Your task to perform on an android device: change the clock display to digital Image 0: 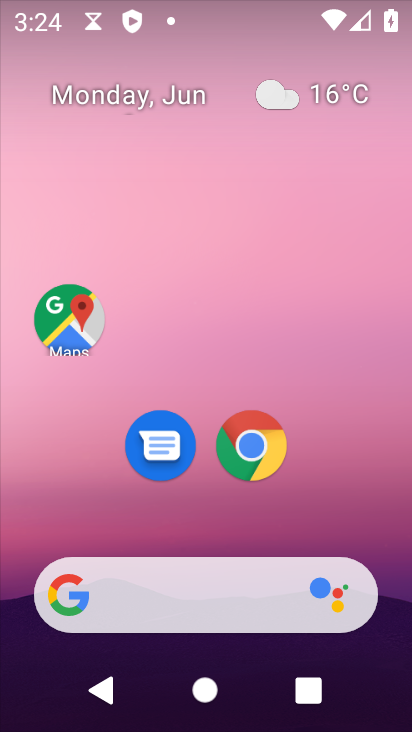
Step 0: drag from (90, 561) to (270, 64)
Your task to perform on an android device: change the clock display to digital Image 1: 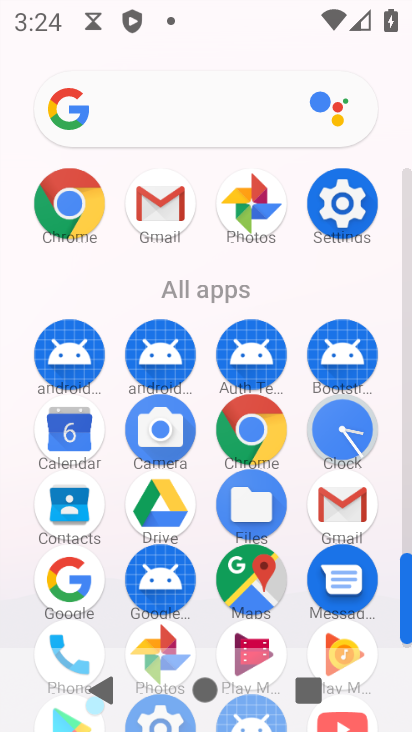
Step 1: click (346, 417)
Your task to perform on an android device: change the clock display to digital Image 2: 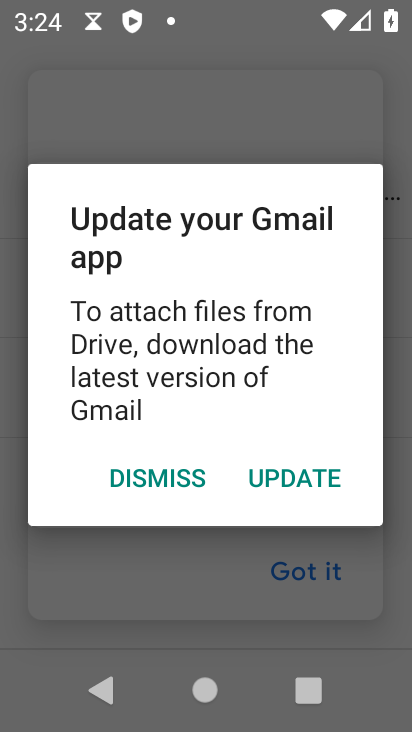
Step 2: press back button
Your task to perform on an android device: change the clock display to digital Image 3: 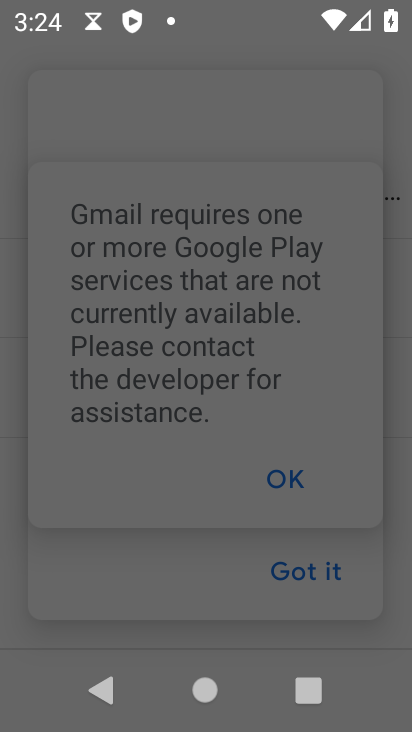
Step 3: click (304, 489)
Your task to perform on an android device: change the clock display to digital Image 4: 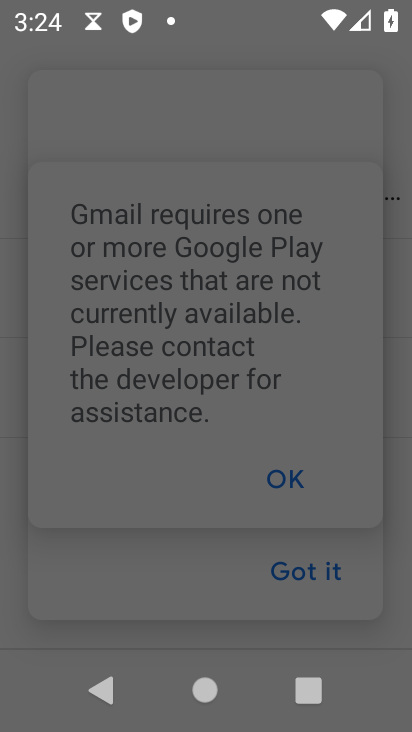
Step 4: click (277, 472)
Your task to perform on an android device: change the clock display to digital Image 5: 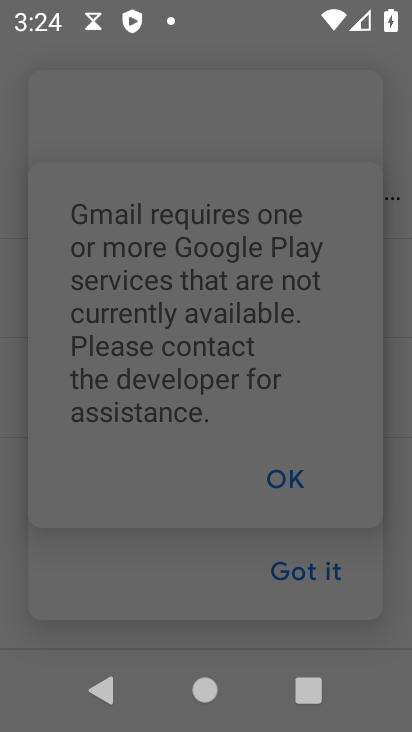
Step 5: click (344, 619)
Your task to perform on an android device: change the clock display to digital Image 6: 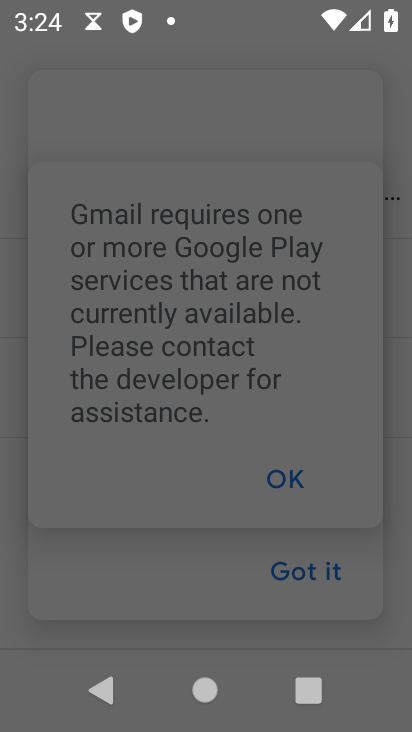
Step 6: press home button
Your task to perform on an android device: change the clock display to digital Image 7: 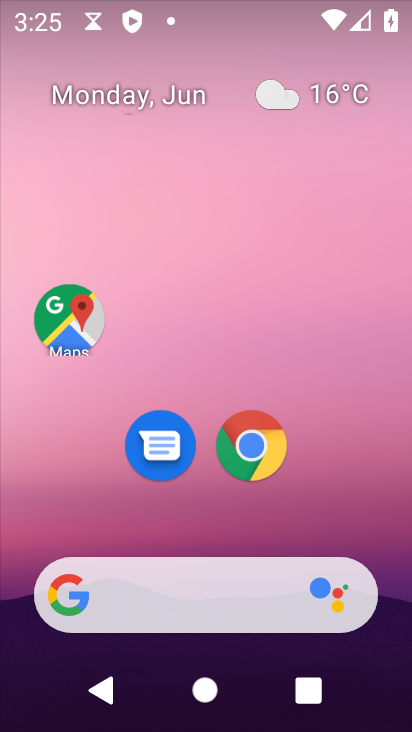
Step 7: drag from (141, 569) to (302, 2)
Your task to perform on an android device: change the clock display to digital Image 8: 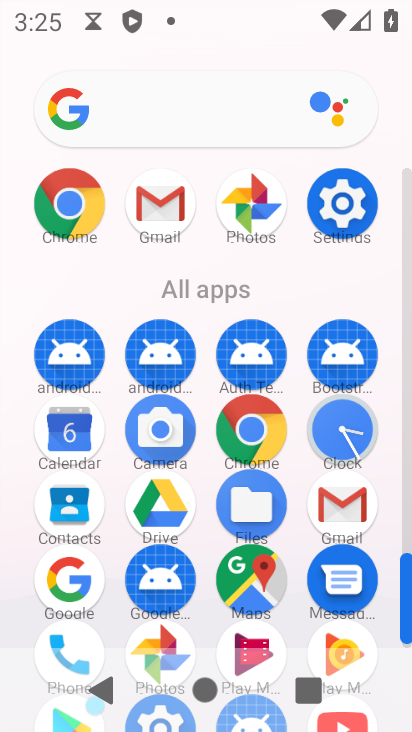
Step 8: click (326, 420)
Your task to perform on an android device: change the clock display to digital Image 9: 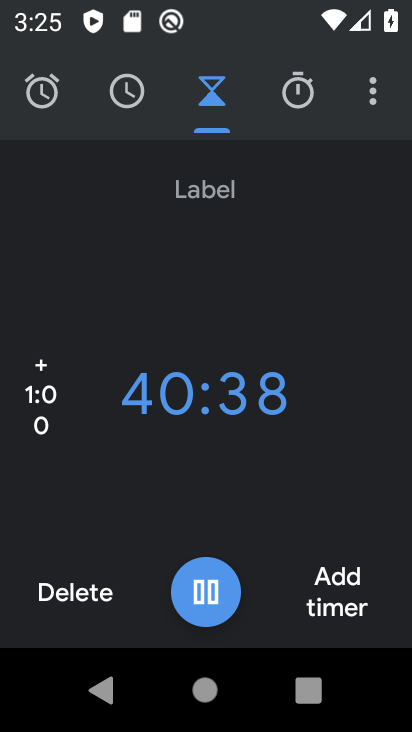
Step 9: click (353, 63)
Your task to perform on an android device: change the clock display to digital Image 10: 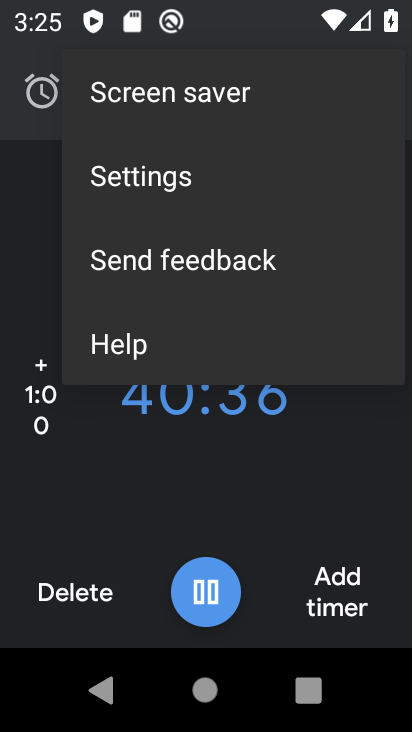
Step 10: click (368, 154)
Your task to perform on an android device: change the clock display to digital Image 11: 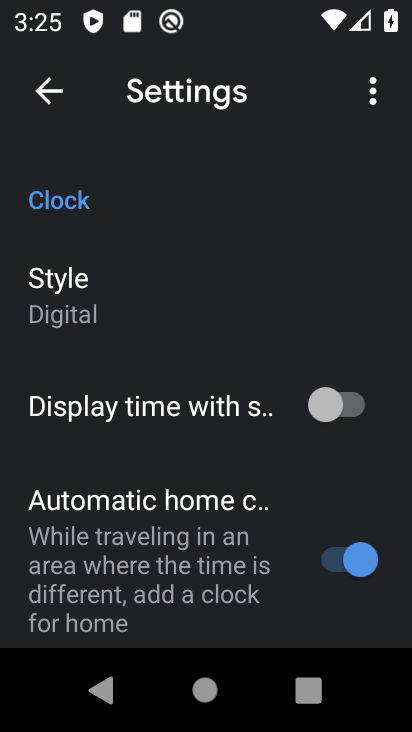
Step 11: click (229, 309)
Your task to perform on an android device: change the clock display to digital Image 12: 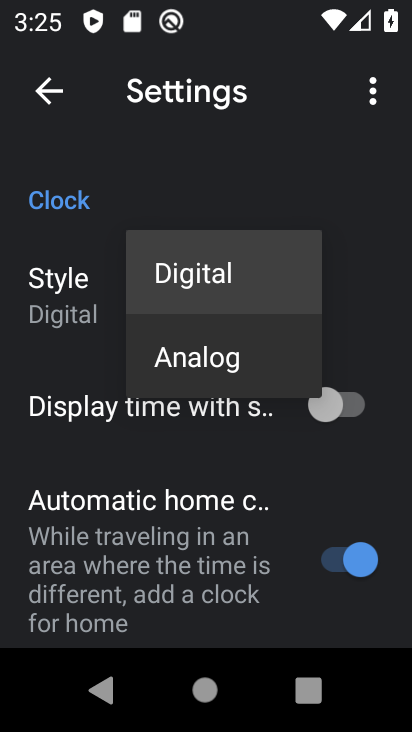
Step 12: click (182, 383)
Your task to perform on an android device: change the clock display to digital Image 13: 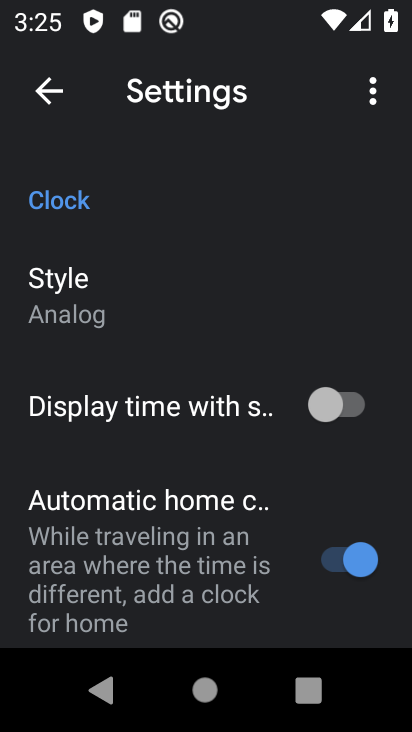
Step 13: task complete